Your task to perform on an android device: open the mobile data screen to see how much data has been used Image 0: 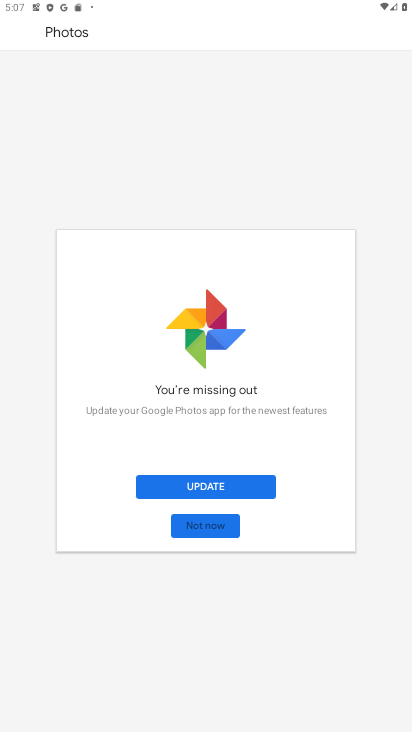
Step 0: press home button
Your task to perform on an android device: open the mobile data screen to see how much data has been used Image 1: 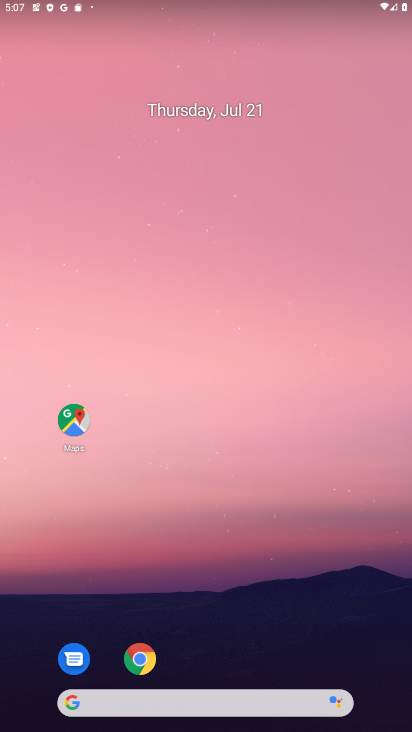
Step 1: drag from (221, 598) to (156, 116)
Your task to perform on an android device: open the mobile data screen to see how much data has been used Image 2: 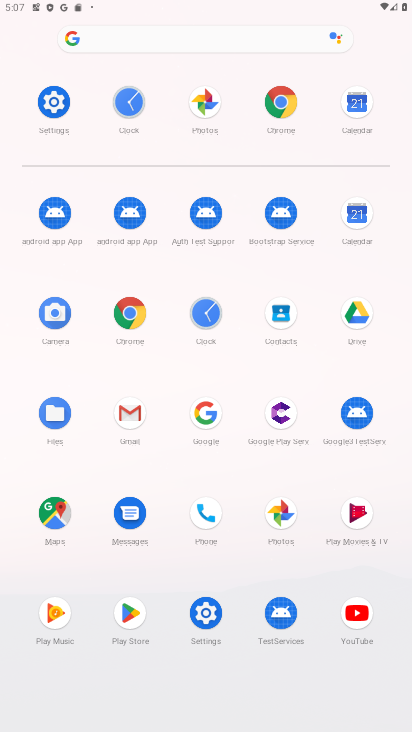
Step 2: click (52, 100)
Your task to perform on an android device: open the mobile data screen to see how much data has been used Image 3: 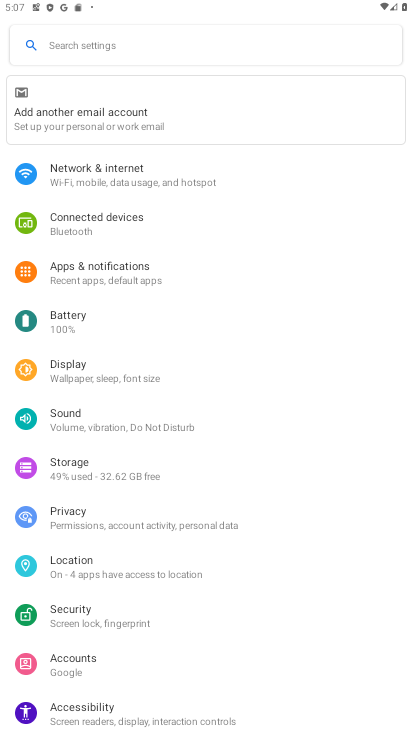
Step 3: click (98, 162)
Your task to perform on an android device: open the mobile data screen to see how much data has been used Image 4: 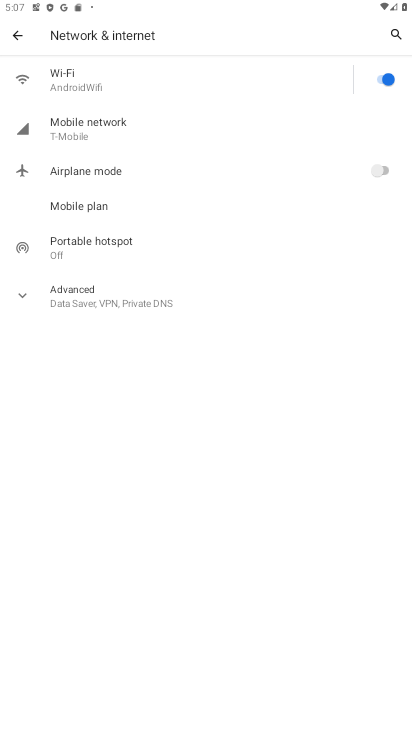
Step 4: click (96, 120)
Your task to perform on an android device: open the mobile data screen to see how much data has been used Image 5: 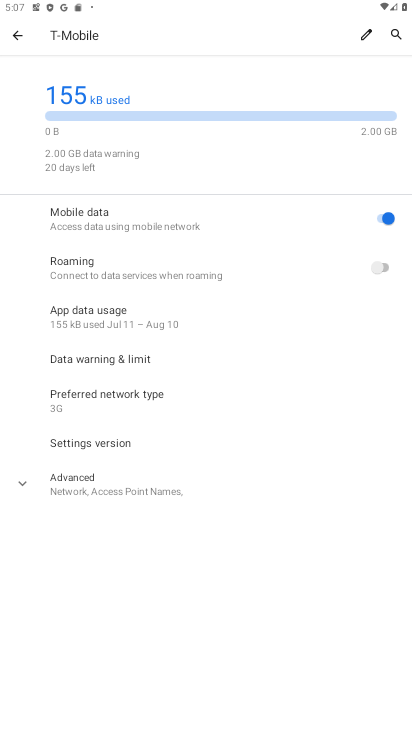
Step 5: task complete